Your task to perform on an android device: Check the news Image 0: 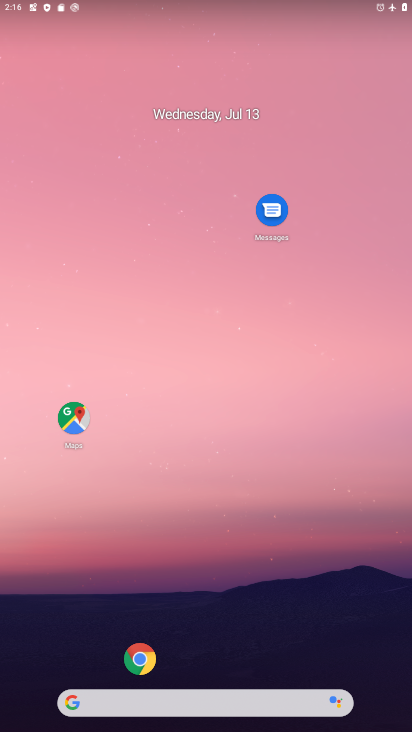
Step 0: click (98, 707)
Your task to perform on an android device: Check the news Image 1: 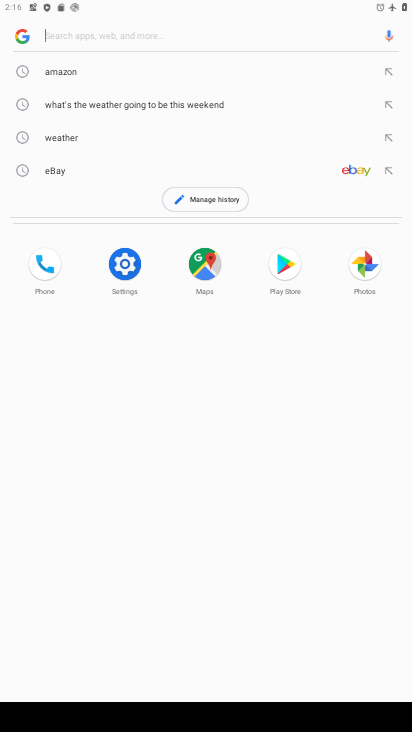
Step 1: type "Check the news"
Your task to perform on an android device: Check the news Image 2: 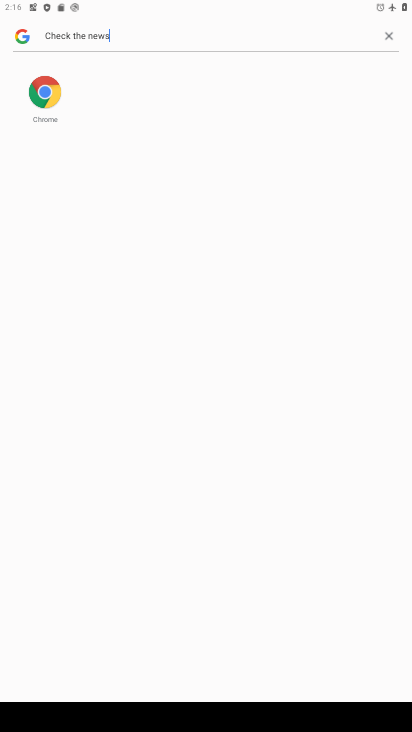
Step 2: type ""
Your task to perform on an android device: Check the news Image 3: 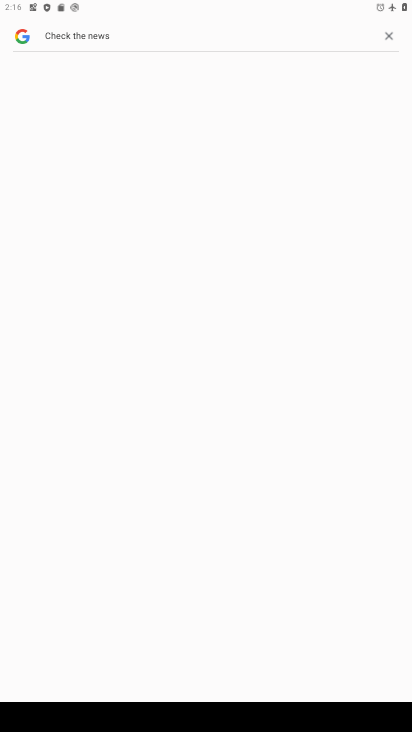
Step 3: type ""
Your task to perform on an android device: Check the news Image 4: 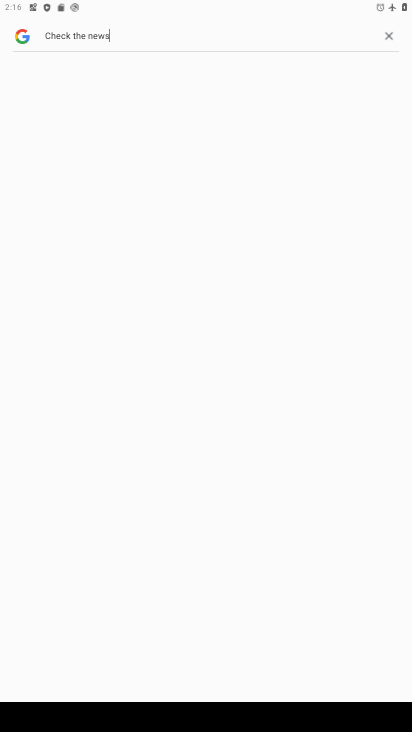
Step 4: type ""
Your task to perform on an android device: Check the news Image 5: 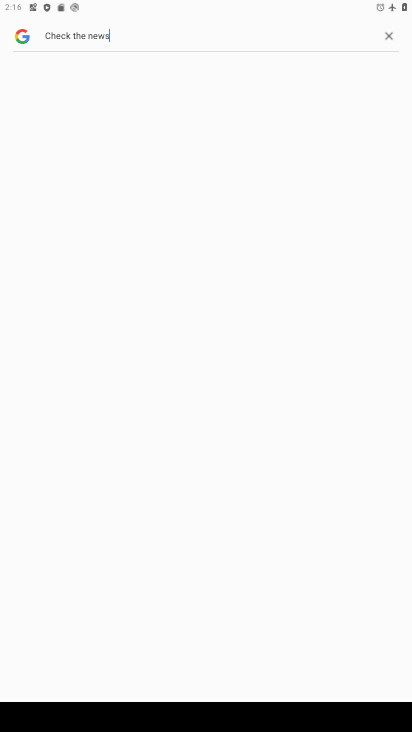
Step 5: task complete